Your task to perform on an android device: Go to Google Image 0: 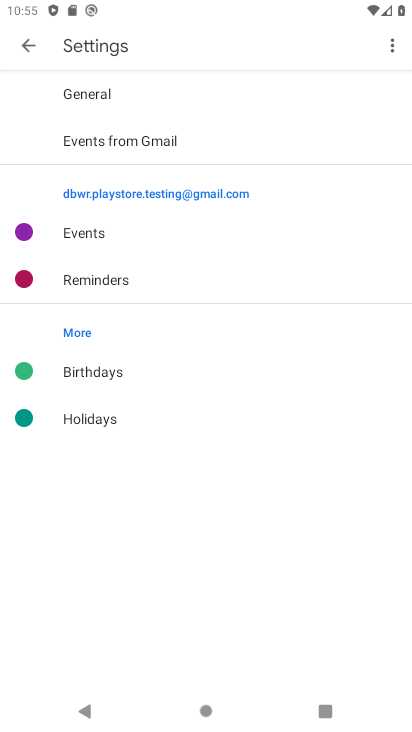
Step 0: press home button
Your task to perform on an android device: Go to Google Image 1: 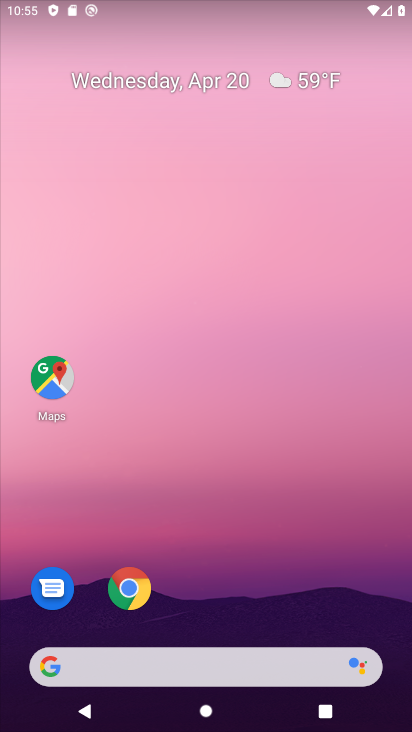
Step 1: drag from (224, 700) to (202, 87)
Your task to perform on an android device: Go to Google Image 2: 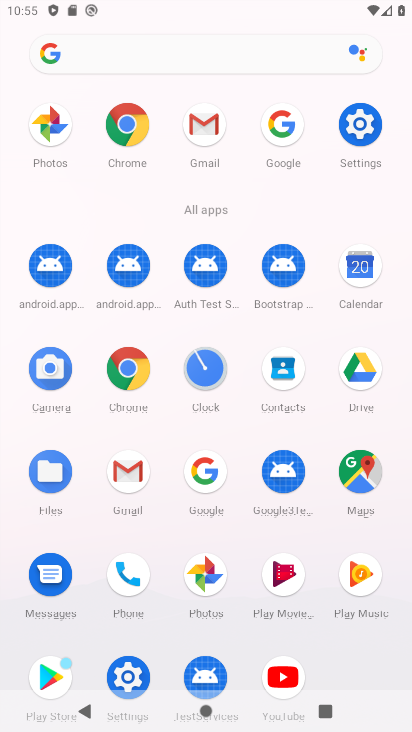
Step 2: click (207, 478)
Your task to perform on an android device: Go to Google Image 3: 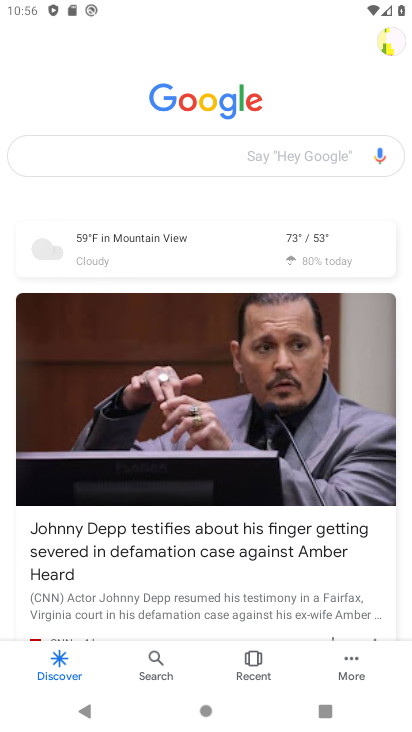
Step 3: task complete